Your task to perform on an android device: toggle show notifications on the lock screen Image 0: 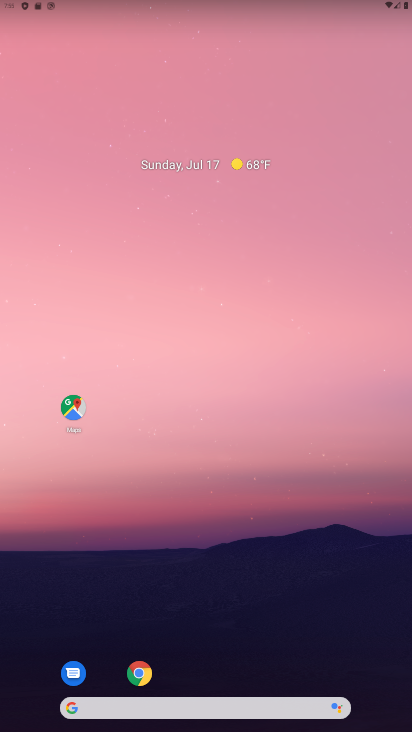
Step 0: drag from (244, 664) to (407, 10)
Your task to perform on an android device: toggle show notifications on the lock screen Image 1: 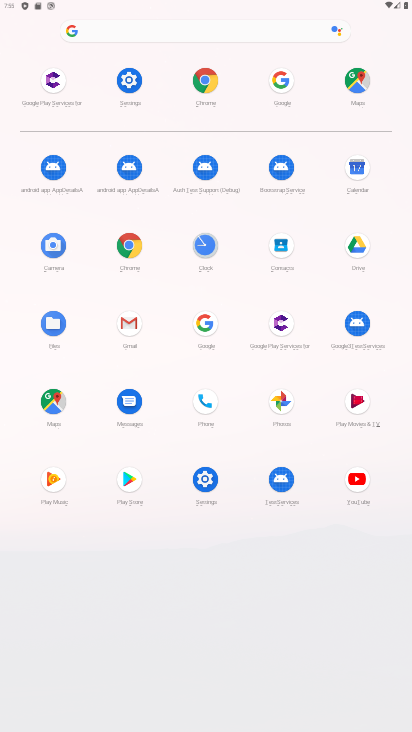
Step 1: click (127, 86)
Your task to perform on an android device: toggle show notifications on the lock screen Image 2: 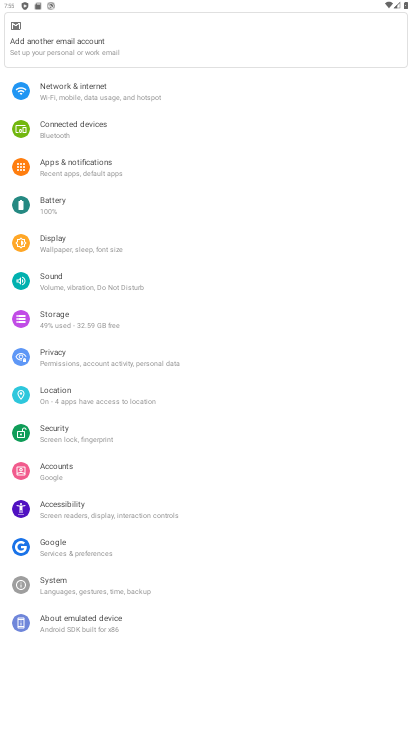
Step 2: click (80, 155)
Your task to perform on an android device: toggle show notifications on the lock screen Image 3: 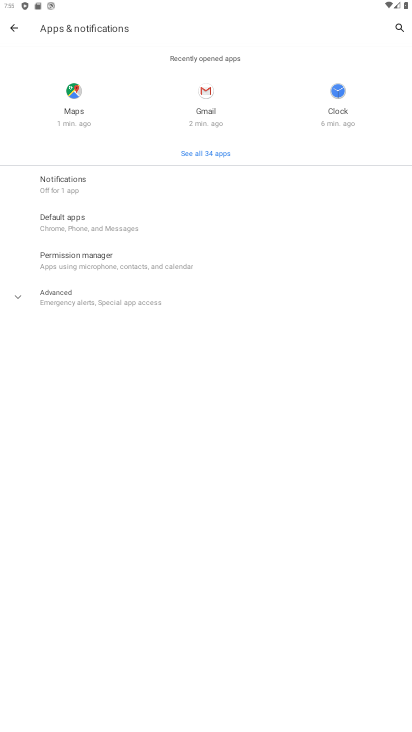
Step 3: click (116, 291)
Your task to perform on an android device: toggle show notifications on the lock screen Image 4: 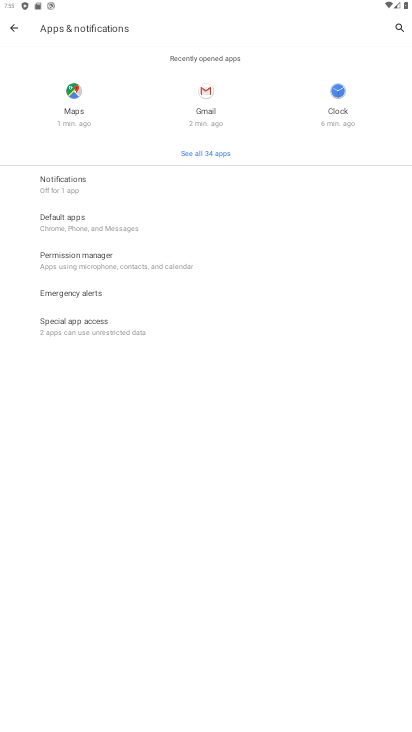
Step 4: click (80, 168)
Your task to perform on an android device: toggle show notifications on the lock screen Image 5: 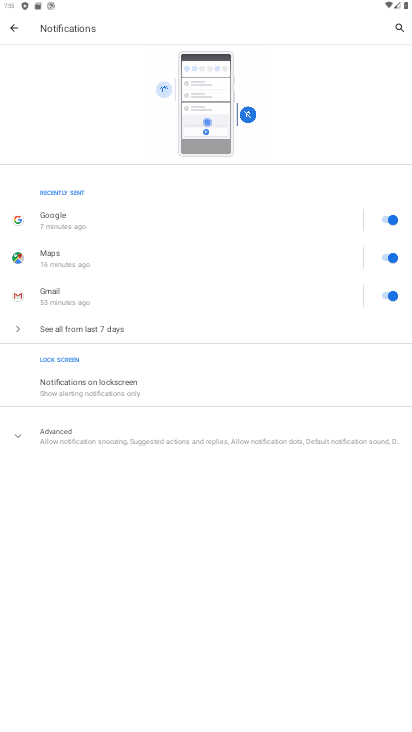
Step 5: click (62, 385)
Your task to perform on an android device: toggle show notifications on the lock screen Image 6: 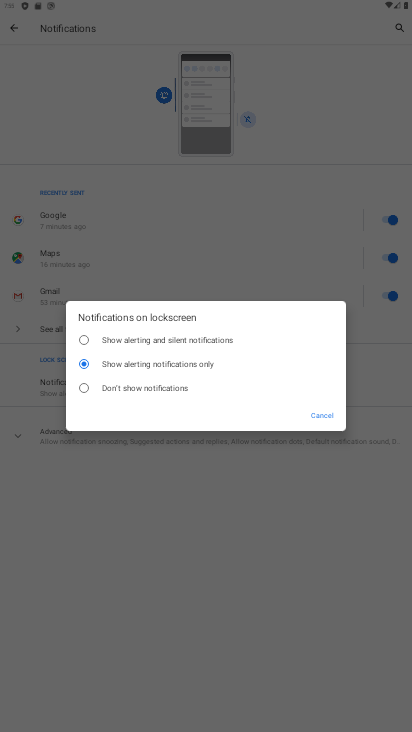
Step 6: click (94, 339)
Your task to perform on an android device: toggle show notifications on the lock screen Image 7: 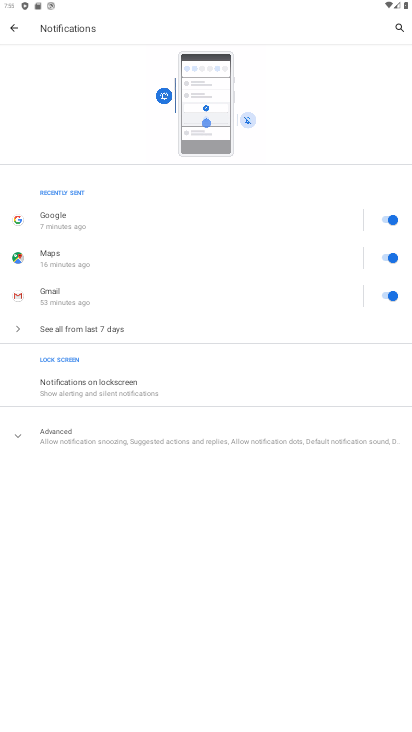
Step 7: task complete